Your task to perform on an android device: change alarm snooze length Image 0: 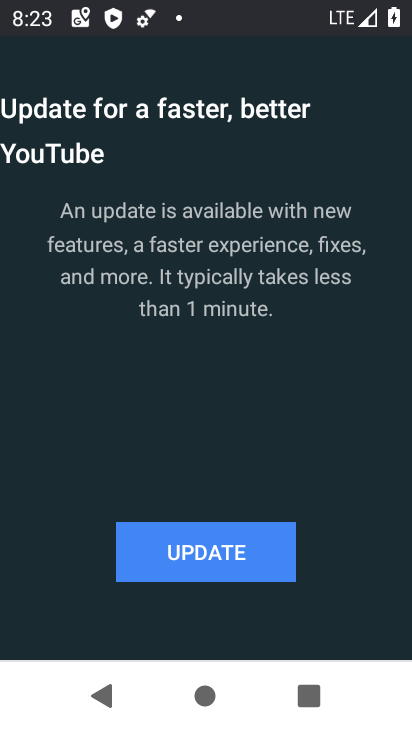
Step 0: click (186, 546)
Your task to perform on an android device: change alarm snooze length Image 1: 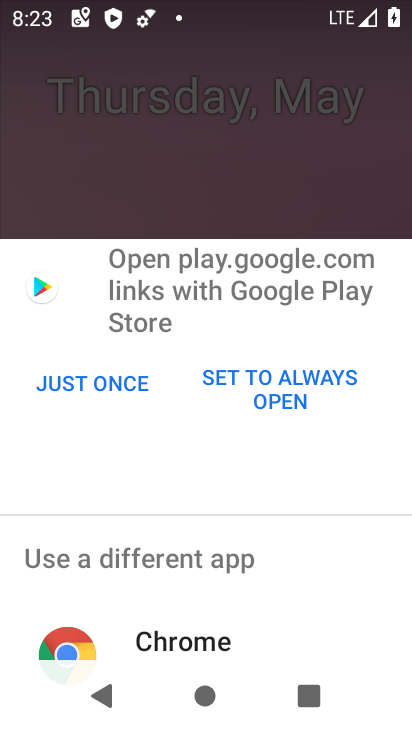
Step 1: press back button
Your task to perform on an android device: change alarm snooze length Image 2: 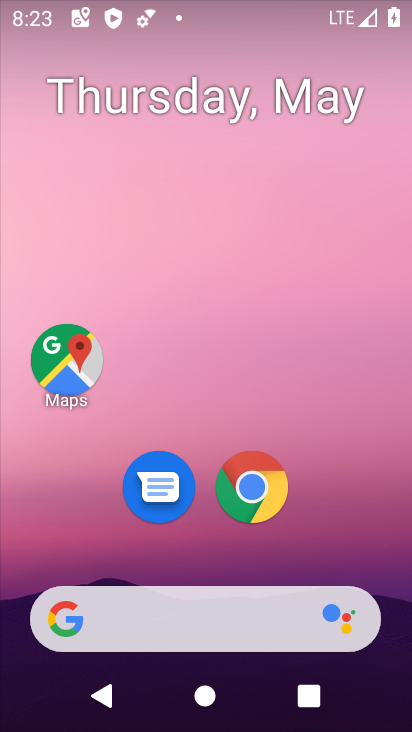
Step 2: drag from (204, 540) to (208, 31)
Your task to perform on an android device: change alarm snooze length Image 3: 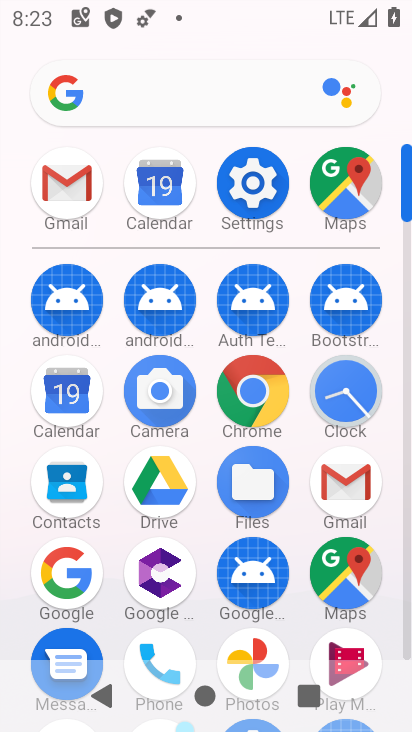
Step 3: click (324, 382)
Your task to perform on an android device: change alarm snooze length Image 4: 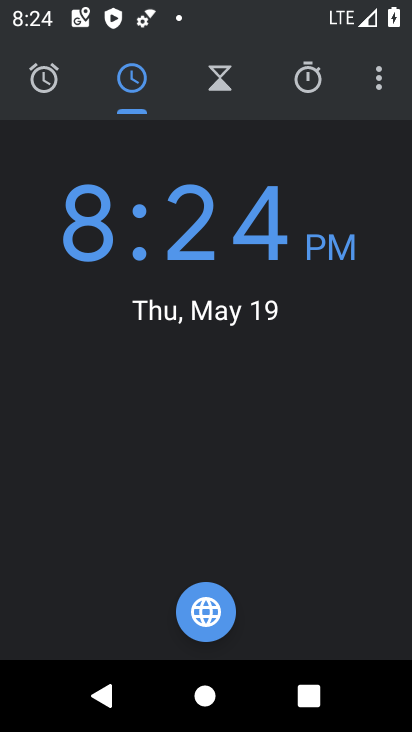
Step 4: click (381, 86)
Your task to perform on an android device: change alarm snooze length Image 5: 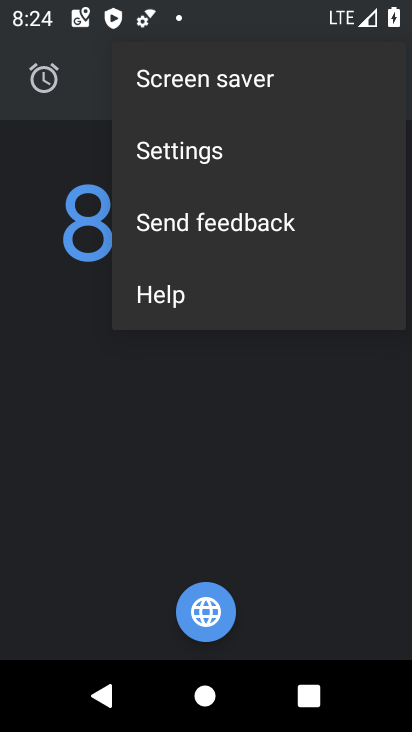
Step 5: click (210, 157)
Your task to perform on an android device: change alarm snooze length Image 6: 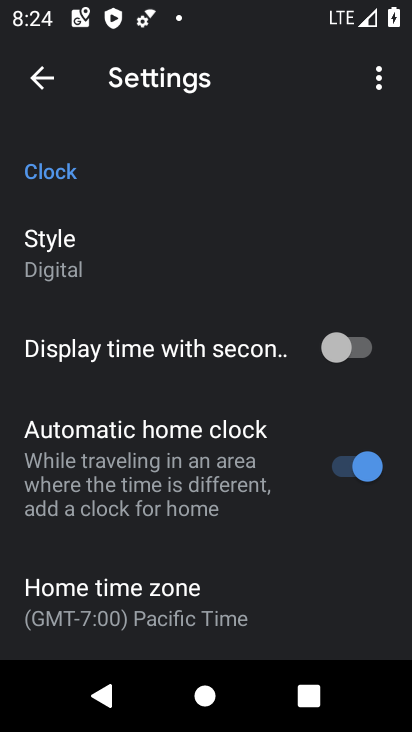
Step 6: drag from (174, 413) to (167, 240)
Your task to perform on an android device: change alarm snooze length Image 7: 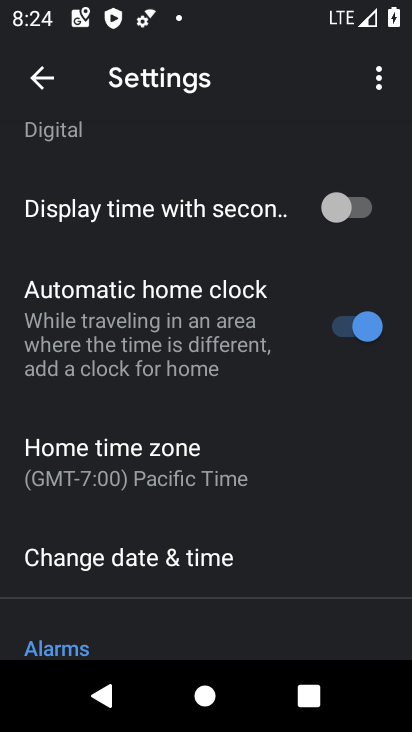
Step 7: drag from (148, 501) to (207, 16)
Your task to perform on an android device: change alarm snooze length Image 8: 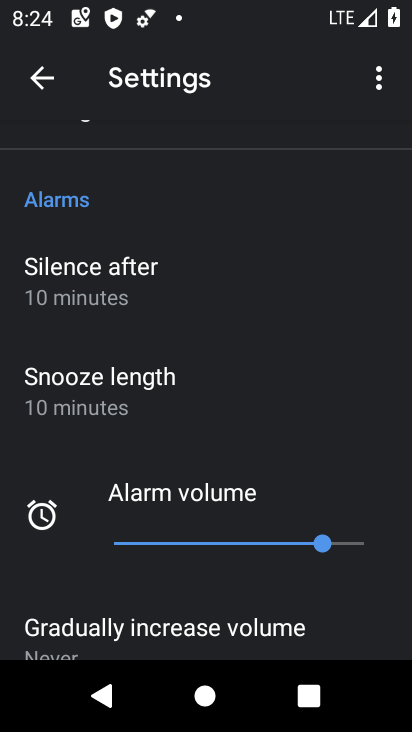
Step 8: click (158, 428)
Your task to perform on an android device: change alarm snooze length Image 9: 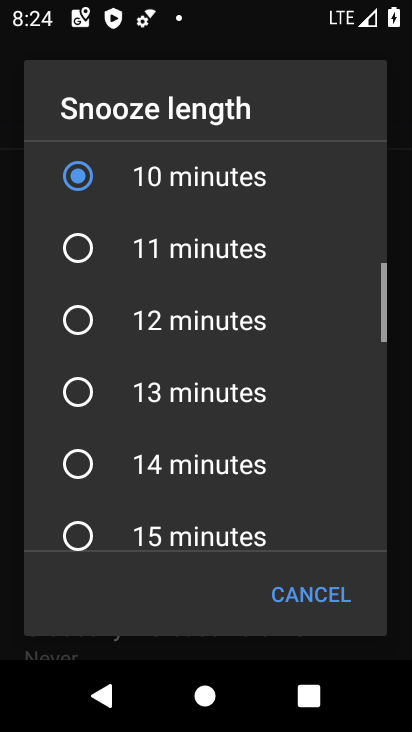
Step 9: click (181, 328)
Your task to perform on an android device: change alarm snooze length Image 10: 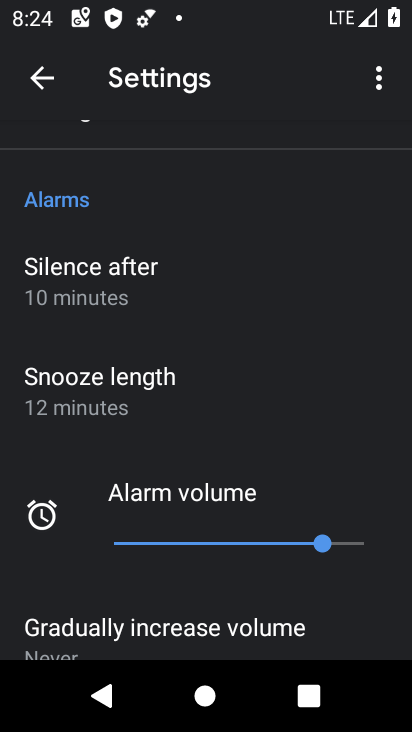
Step 10: task complete